Your task to perform on an android device: Open Google Image 0: 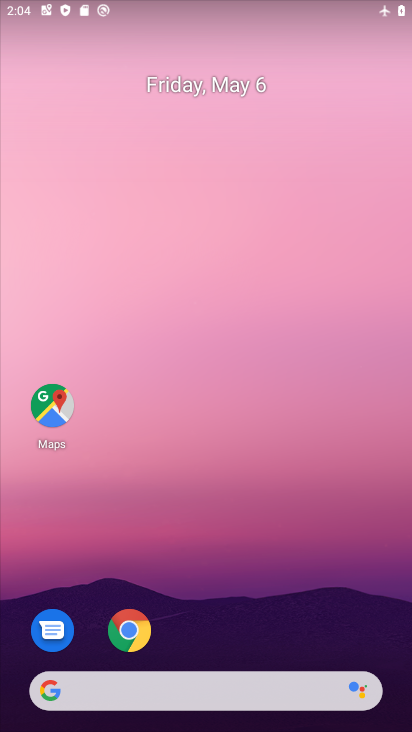
Step 0: drag from (210, 80) to (214, 2)
Your task to perform on an android device: Open Google Image 1: 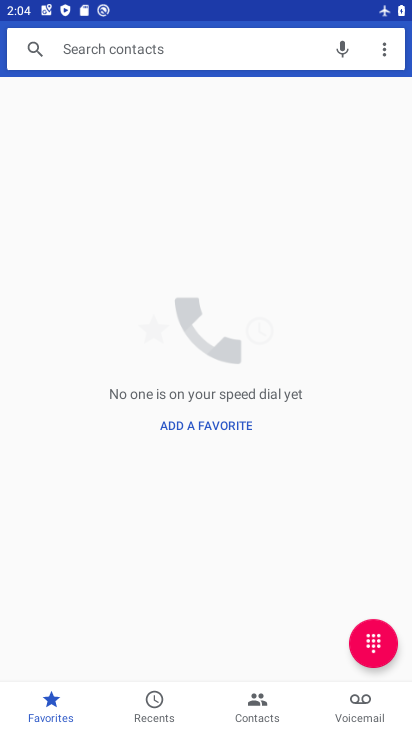
Step 1: press home button
Your task to perform on an android device: Open Google Image 2: 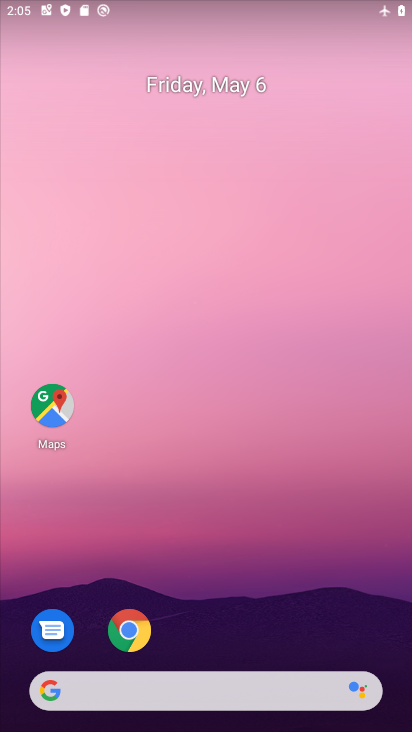
Step 2: drag from (205, 695) to (195, 112)
Your task to perform on an android device: Open Google Image 3: 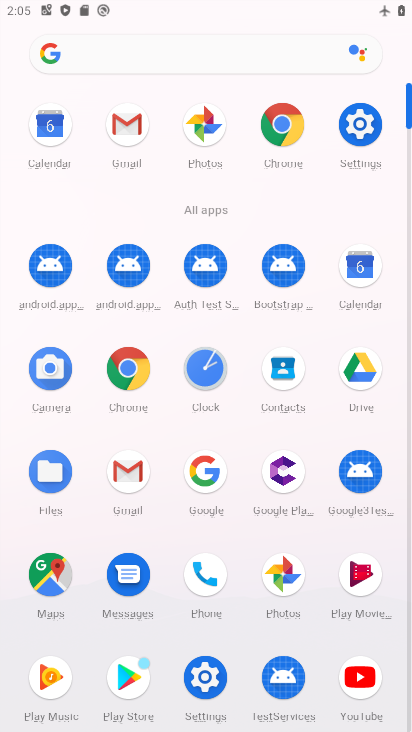
Step 3: click (200, 487)
Your task to perform on an android device: Open Google Image 4: 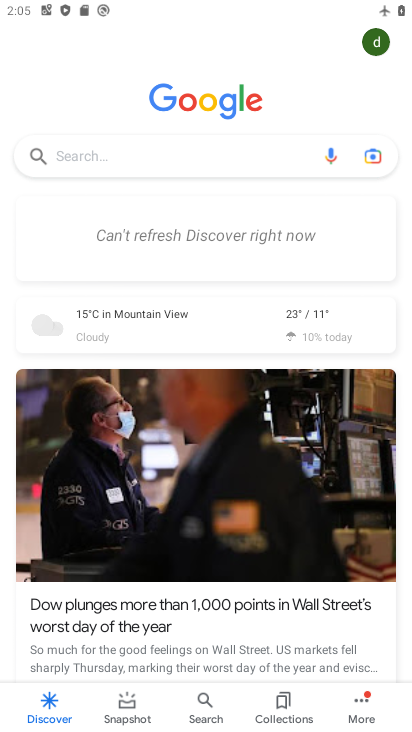
Step 4: task complete